Your task to perform on an android device: Open Youtube and go to "Your channel" Image 0: 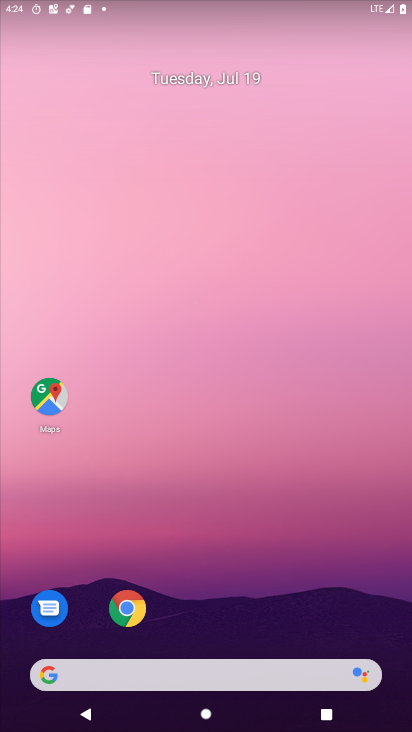
Step 0: drag from (180, 674) to (243, 145)
Your task to perform on an android device: Open Youtube and go to "Your channel" Image 1: 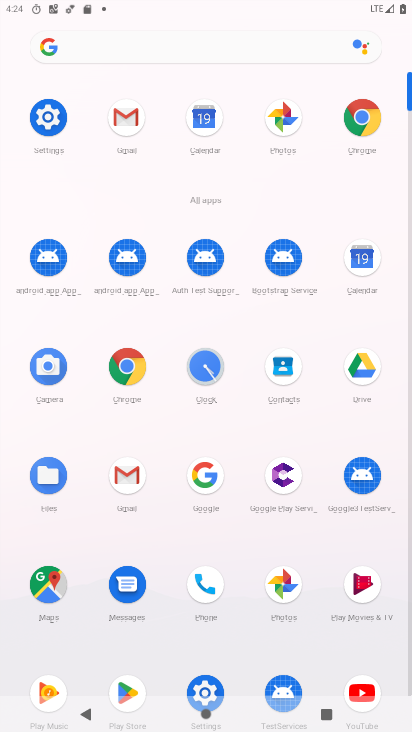
Step 1: click (360, 690)
Your task to perform on an android device: Open Youtube and go to "Your channel" Image 2: 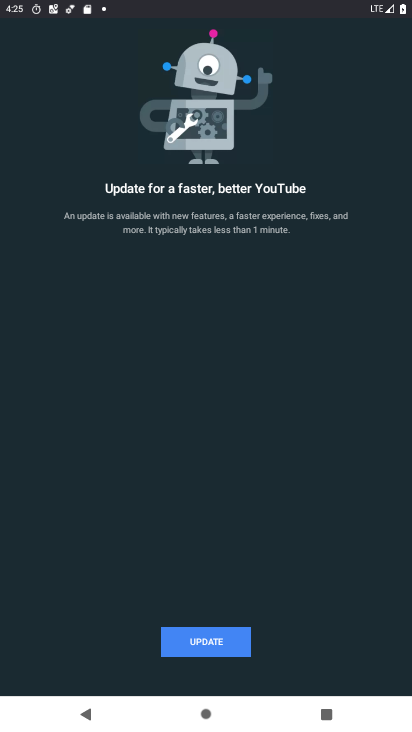
Step 2: click (216, 641)
Your task to perform on an android device: Open Youtube and go to "Your channel" Image 3: 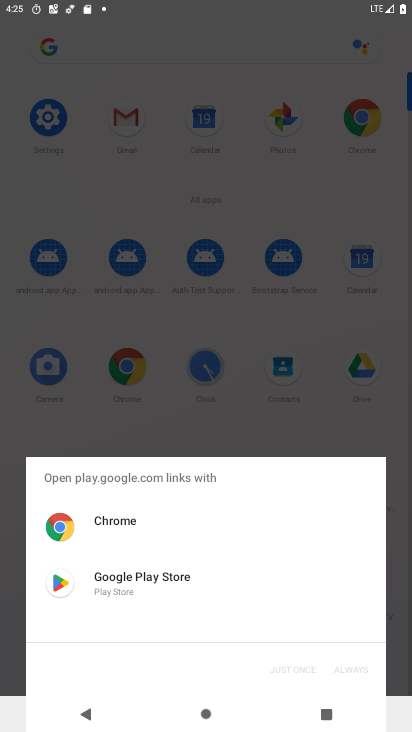
Step 3: click (138, 570)
Your task to perform on an android device: Open Youtube and go to "Your channel" Image 4: 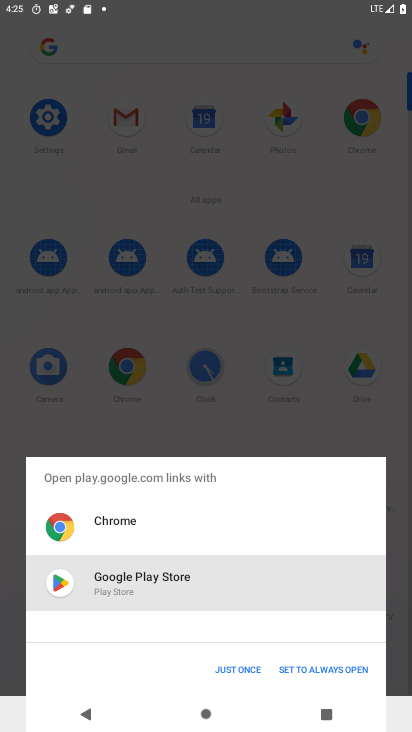
Step 4: click (238, 668)
Your task to perform on an android device: Open Youtube and go to "Your channel" Image 5: 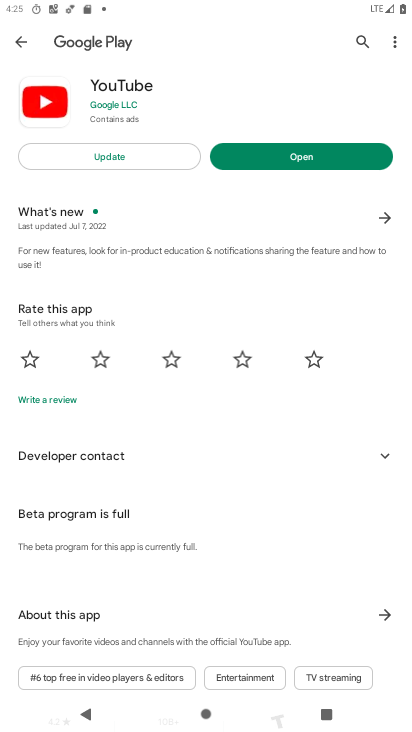
Step 5: click (113, 154)
Your task to perform on an android device: Open Youtube and go to "Your channel" Image 6: 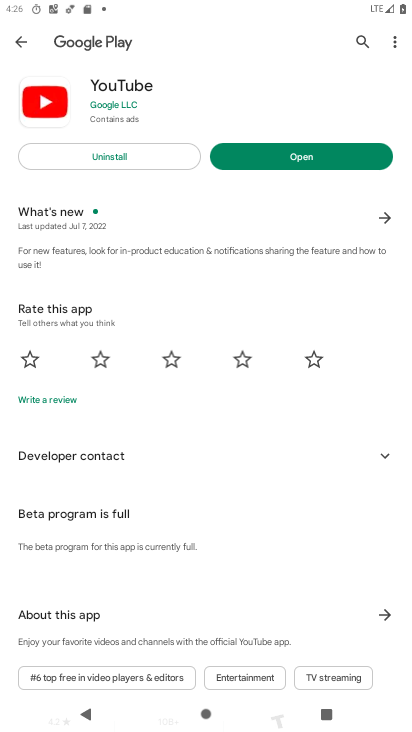
Step 6: click (302, 156)
Your task to perform on an android device: Open Youtube and go to "Your channel" Image 7: 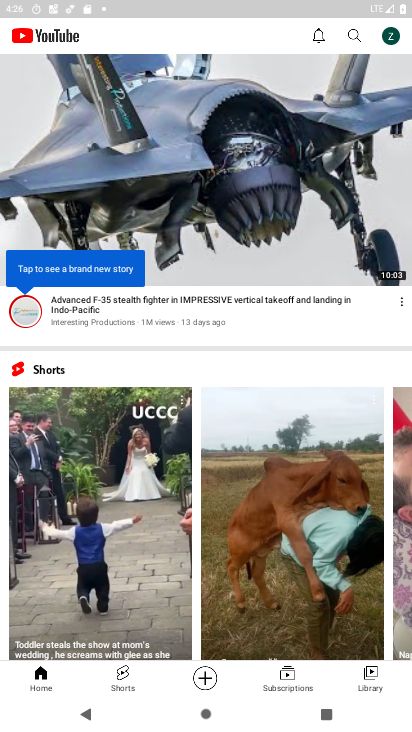
Step 7: click (388, 38)
Your task to perform on an android device: Open Youtube and go to "Your channel" Image 8: 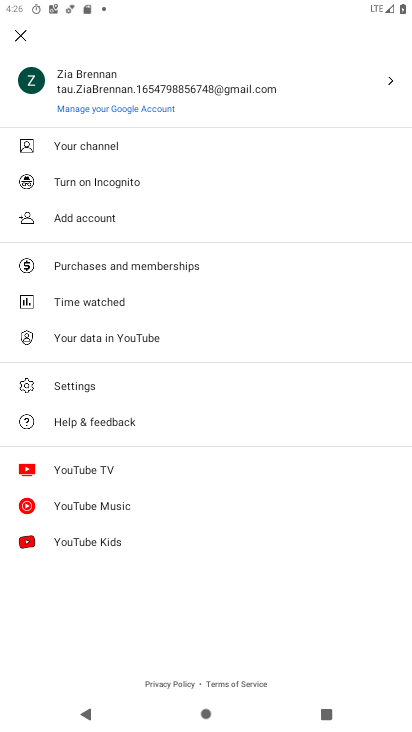
Step 8: click (95, 144)
Your task to perform on an android device: Open Youtube and go to "Your channel" Image 9: 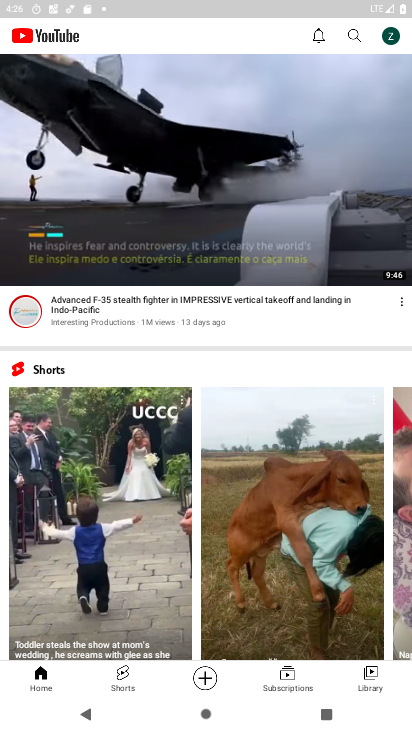
Step 9: task complete